Your task to perform on an android device: toggle data saver in the chrome app Image 0: 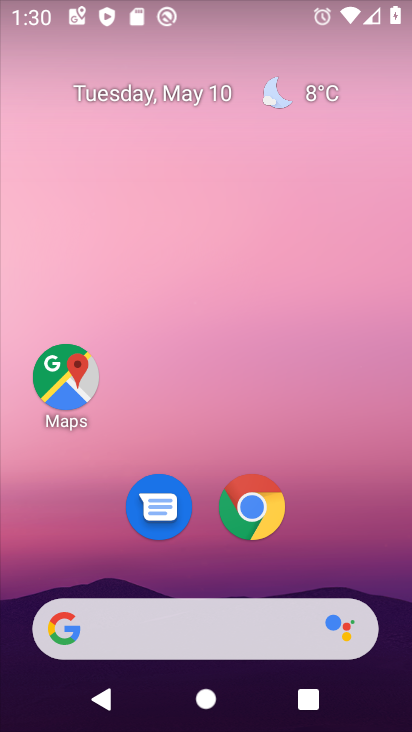
Step 0: click (255, 513)
Your task to perform on an android device: toggle data saver in the chrome app Image 1: 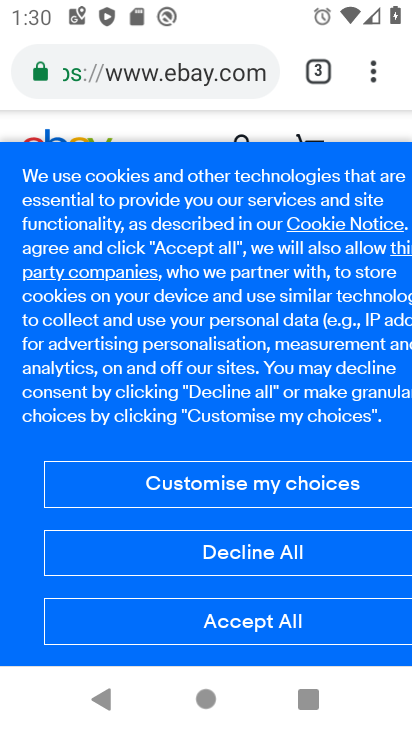
Step 1: click (373, 77)
Your task to perform on an android device: toggle data saver in the chrome app Image 2: 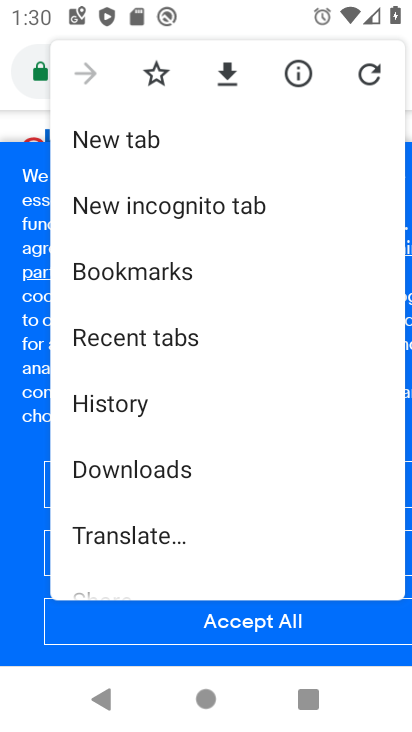
Step 2: drag from (186, 521) to (192, 111)
Your task to perform on an android device: toggle data saver in the chrome app Image 3: 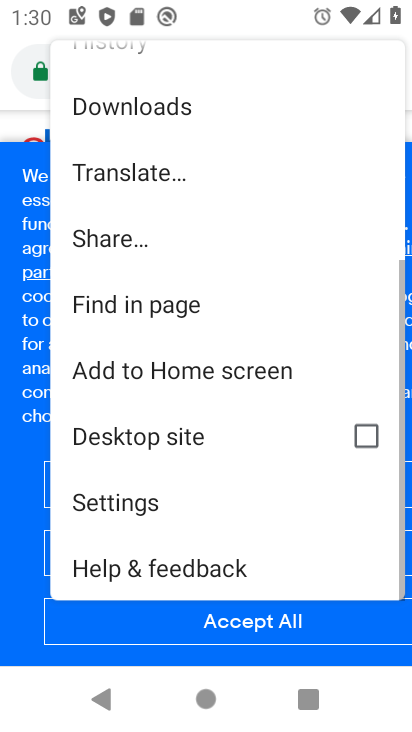
Step 3: click (126, 506)
Your task to perform on an android device: toggle data saver in the chrome app Image 4: 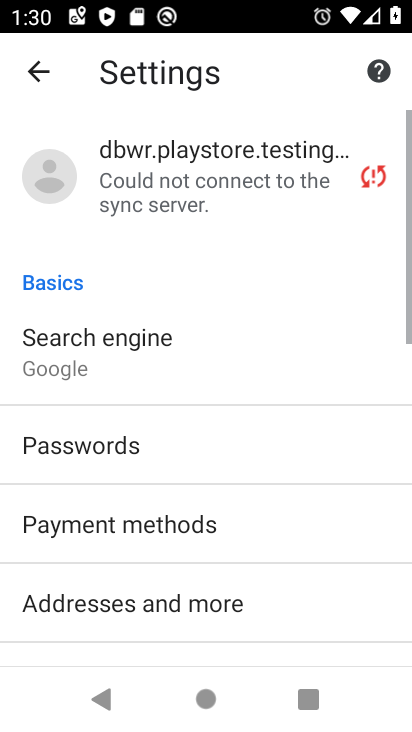
Step 4: drag from (156, 620) to (181, 291)
Your task to perform on an android device: toggle data saver in the chrome app Image 5: 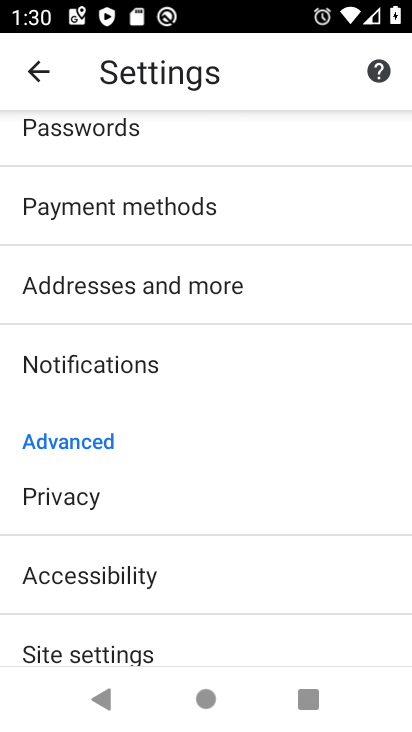
Step 5: drag from (157, 605) to (156, 272)
Your task to perform on an android device: toggle data saver in the chrome app Image 6: 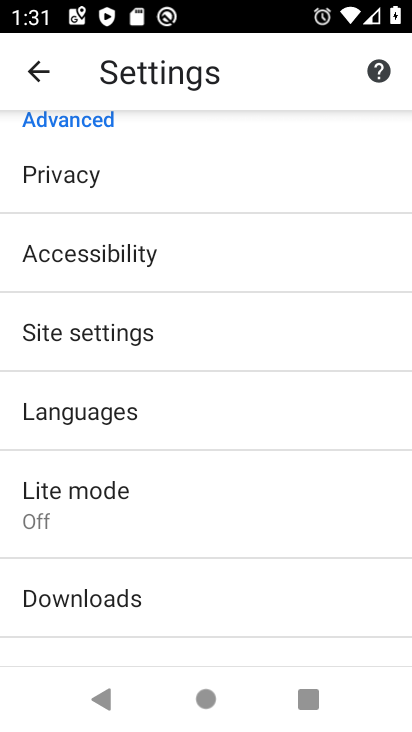
Step 6: click (74, 488)
Your task to perform on an android device: toggle data saver in the chrome app Image 7: 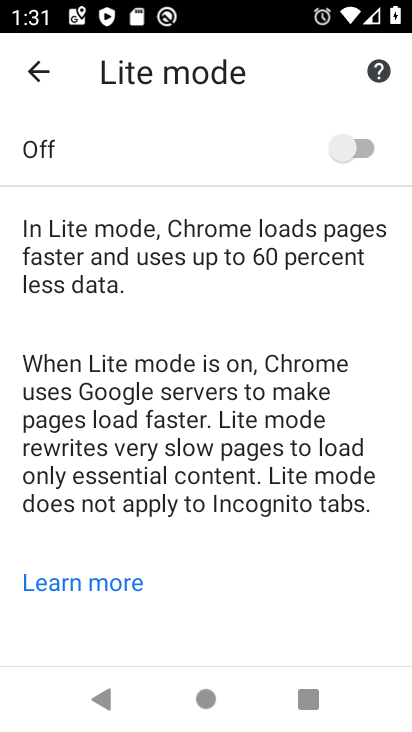
Step 7: drag from (173, 615) to (209, 304)
Your task to perform on an android device: toggle data saver in the chrome app Image 8: 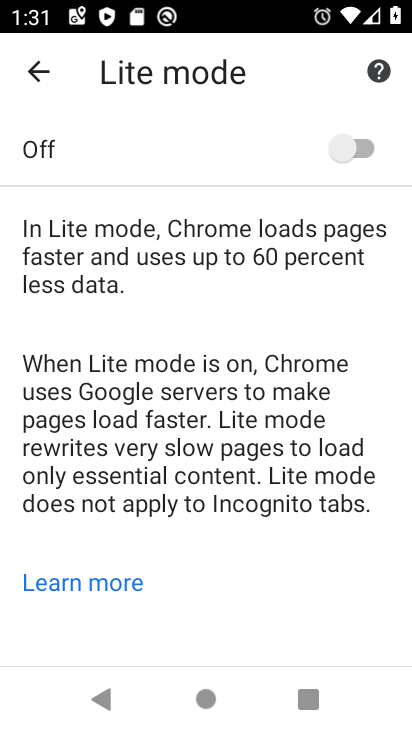
Step 8: click (366, 149)
Your task to perform on an android device: toggle data saver in the chrome app Image 9: 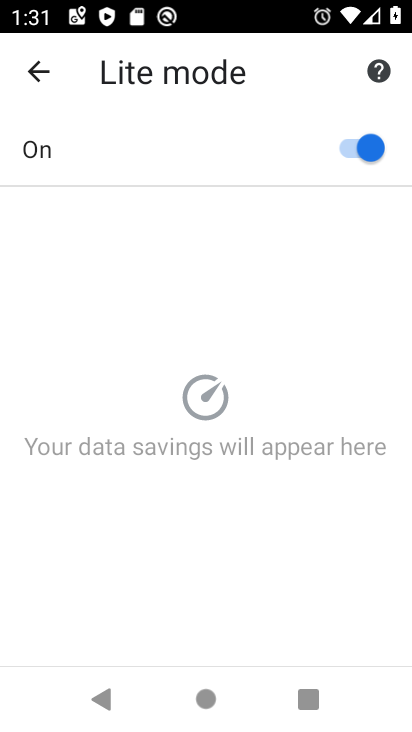
Step 9: task complete